Your task to perform on an android device: Show me recent news Image 0: 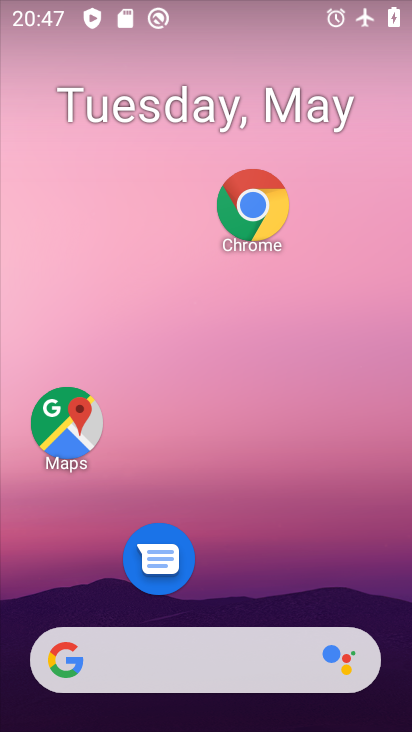
Step 0: drag from (213, 606) to (220, 216)
Your task to perform on an android device: Show me recent news Image 1: 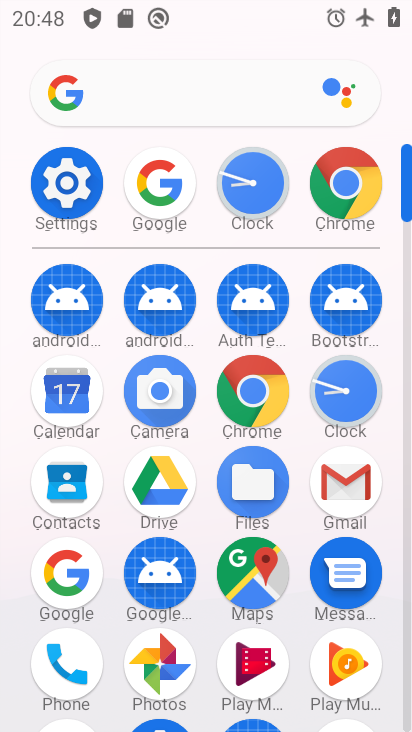
Step 1: click (76, 583)
Your task to perform on an android device: Show me recent news Image 2: 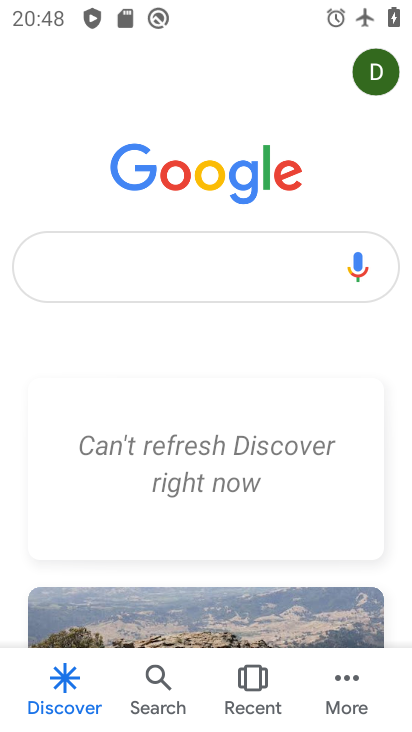
Step 2: click (175, 267)
Your task to perform on an android device: Show me recent news Image 3: 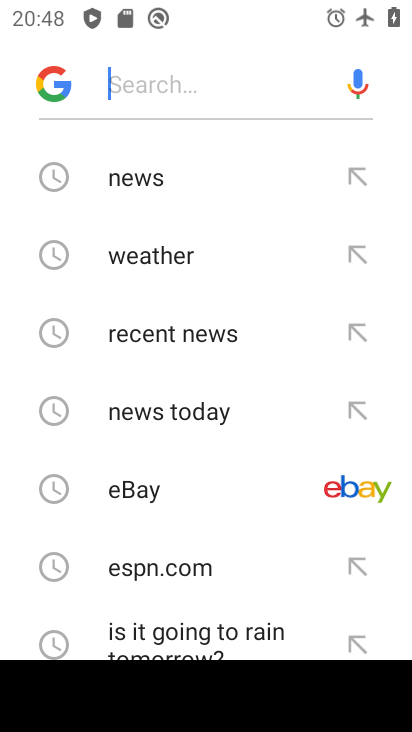
Step 3: click (132, 189)
Your task to perform on an android device: Show me recent news Image 4: 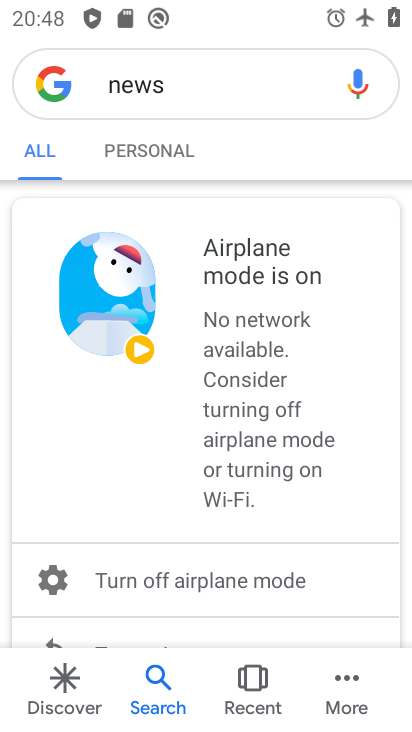
Step 4: task complete